Your task to perform on an android device: turn off notifications in google photos Image 0: 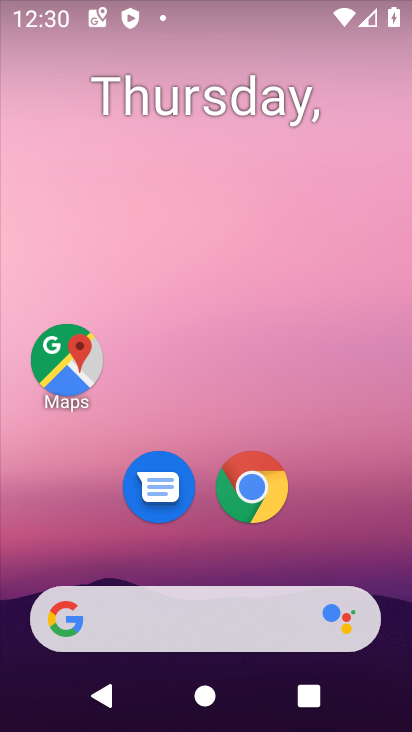
Step 0: drag from (387, 586) to (299, 115)
Your task to perform on an android device: turn off notifications in google photos Image 1: 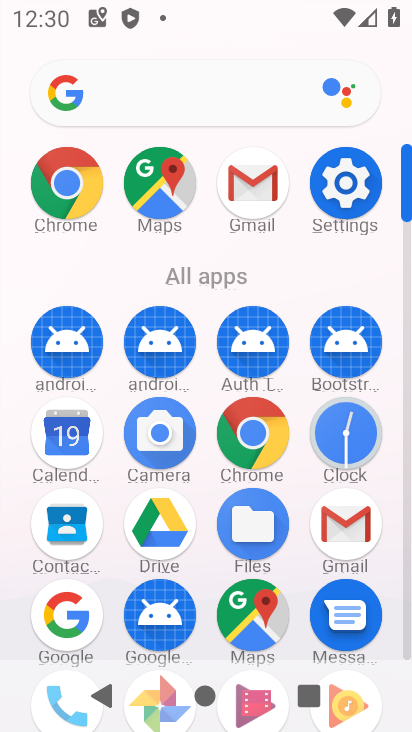
Step 1: click (409, 651)
Your task to perform on an android device: turn off notifications in google photos Image 2: 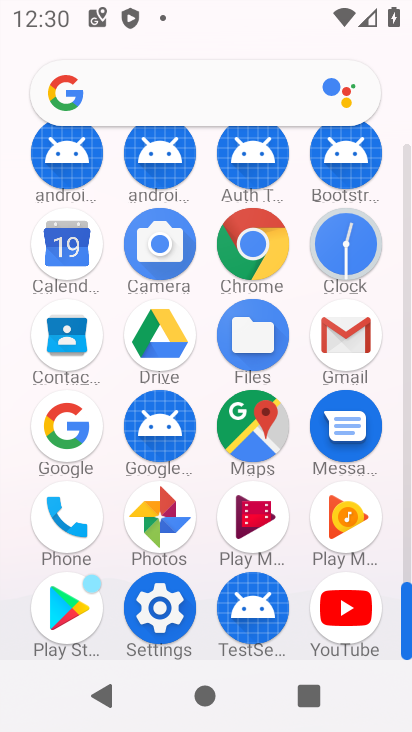
Step 2: click (171, 535)
Your task to perform on an android device: turn off notifications in google photos Image 3: 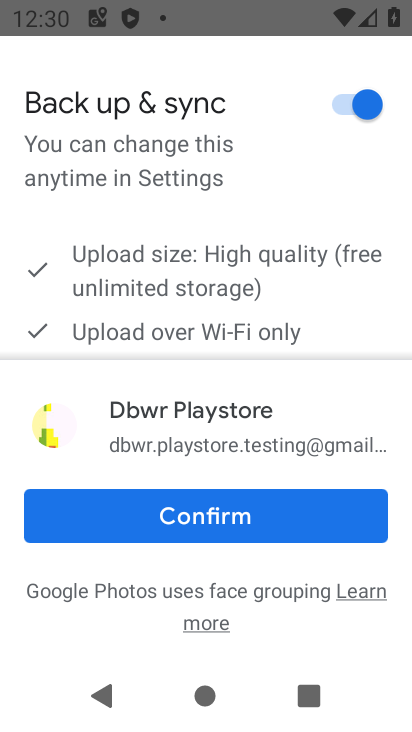
Step 3: click (169, 532)
Your task to perform on an android device: turn off notifications in google photos Image 4: 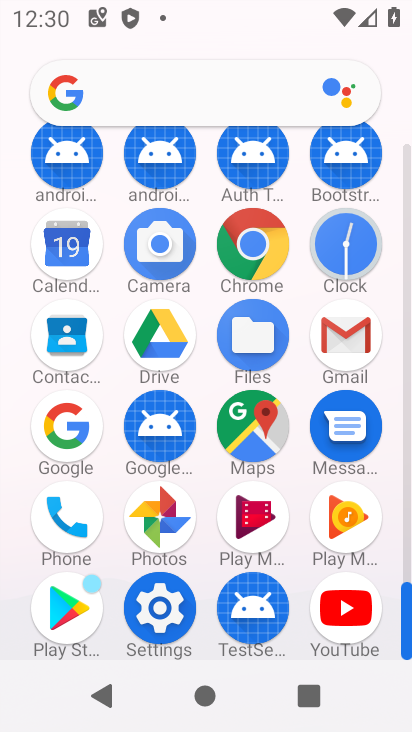
Step 4: click (165, 511)
Your task to perform on an android device: turn off notifications in google photos Image 5: 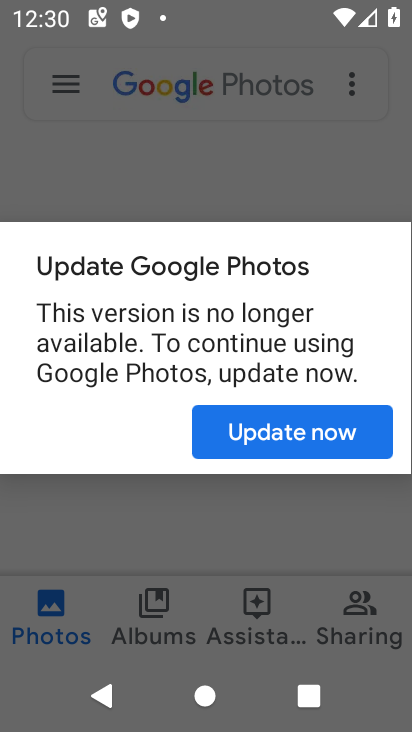
Step 5: click (262, 451)
Your task to perform on an android device: turn off notifications in google photos Image 6: 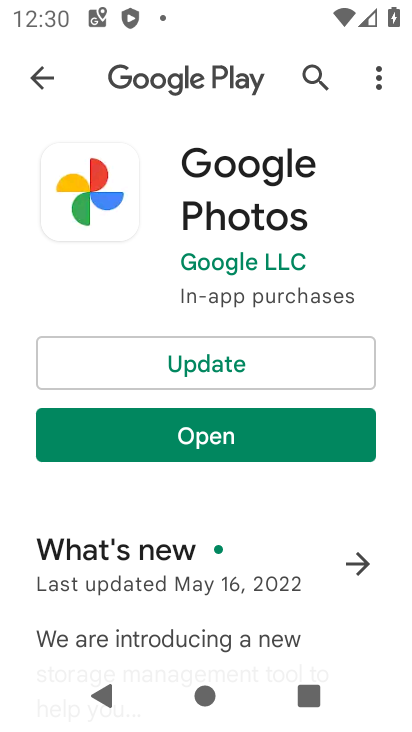
Step 6: click (229, 376)
Your task to perform on an android device: turn off notifications in google photos Image 7: 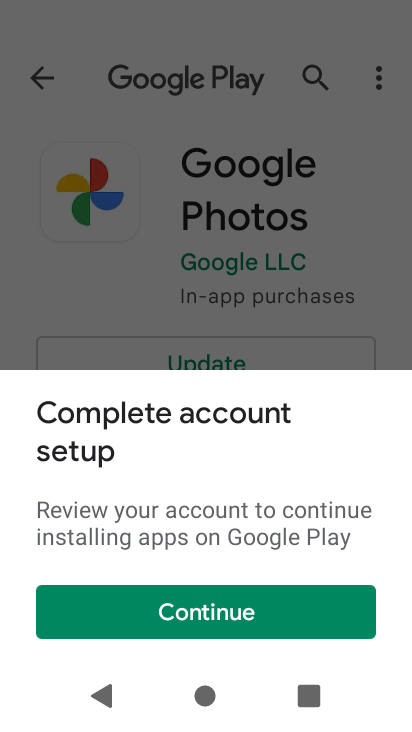
Step 7: click (274, 612)
Your task to perform on an android device: turn off notifications in google photos Image 8: 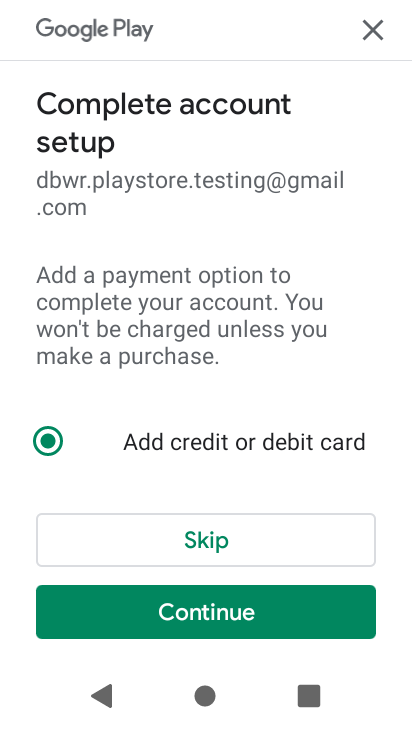
Step 8: click (266, 531)
Your task to perform on an android device: turn off notifications in google photos Image 9: 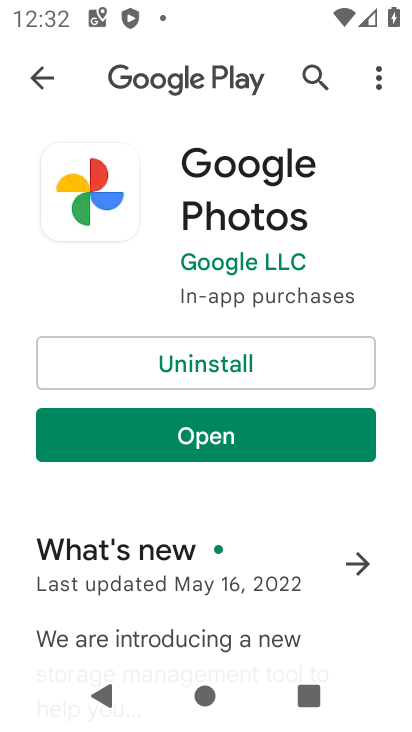
Step 9: click (328, 442)
Your task to perform on an android device: turn off notifications in google photos Image 10: 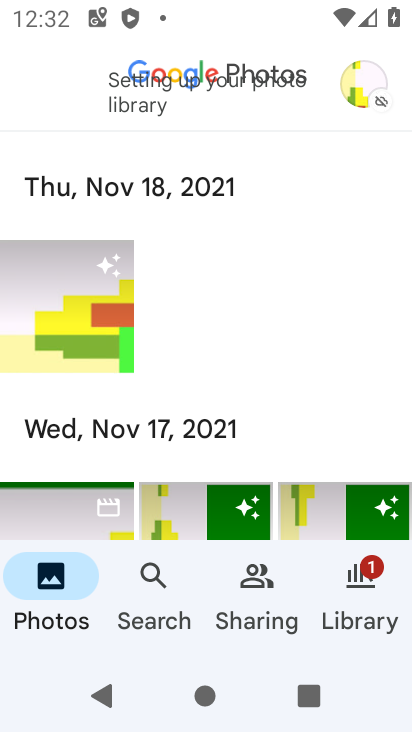
Step 10: click (360, 95)
Your task to perform on an android device: turn off notifications in google photos Image 11: 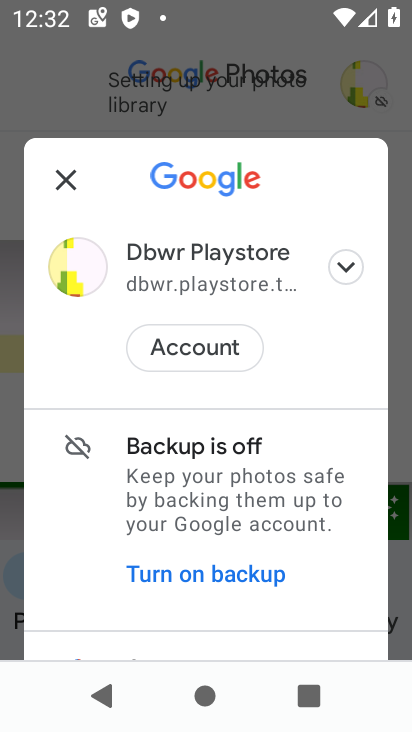
Step 11: drag from (334, 610) to (308, 253)
Your task to perform on an android device: turn off notifications in google photos Image 12: 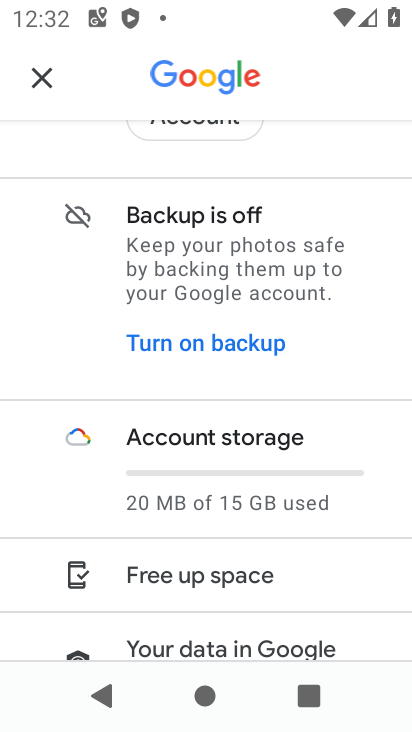
Step 12: drag from (326, 594) to (318, 211)
Your task to perform on an android device: turn off notifications in google photos Image 13: 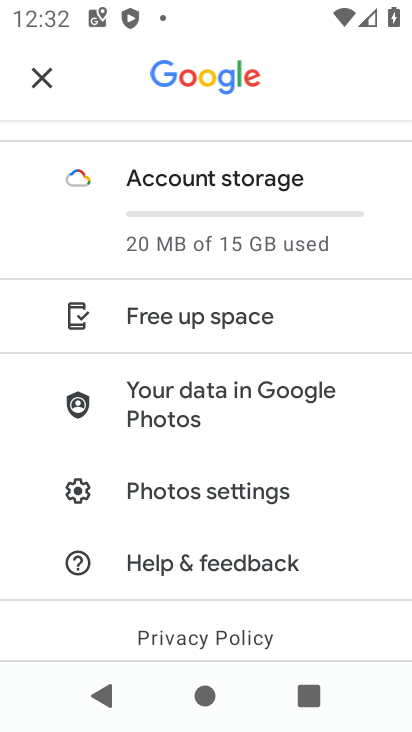
Step 13: click (301, 488)
Your task to perform on an android device: turn off notifications in google photos Image 14: 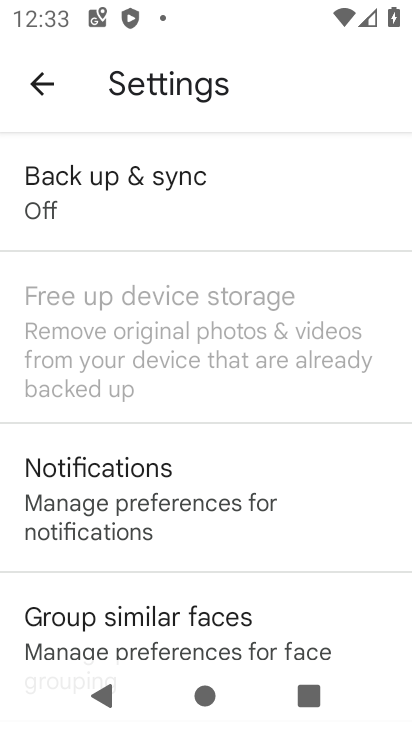
Step 14: click (253, 506)
Your task to perform on an android device: turn off notifications in google photos Image 15: 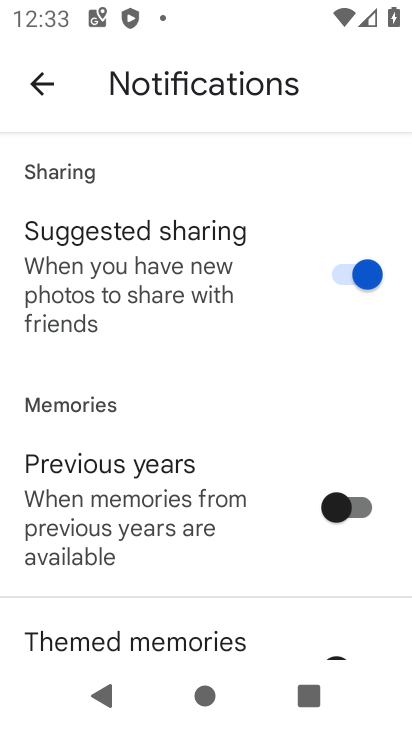
Step 15: drag from (205, 605) to (209, 0)
Your task to perform on an android device: turn off notifications in google photos Image 16: 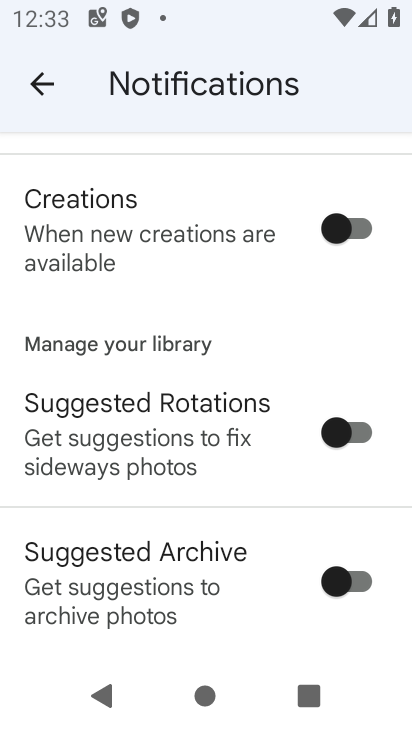
Step 16: drag from (248, 617) to (231, 208)
Your task to perform on an android device: turn off notifications in google photos Image 17: 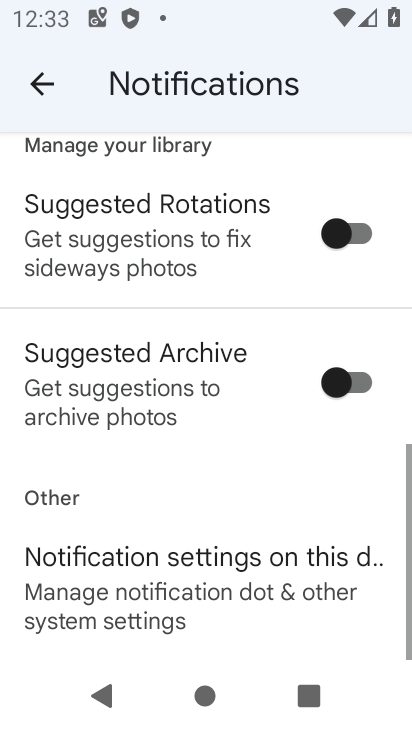
Step 17: click (207, 579)
Your task to perform on an android device: turn off notifications in google photos Image 18: 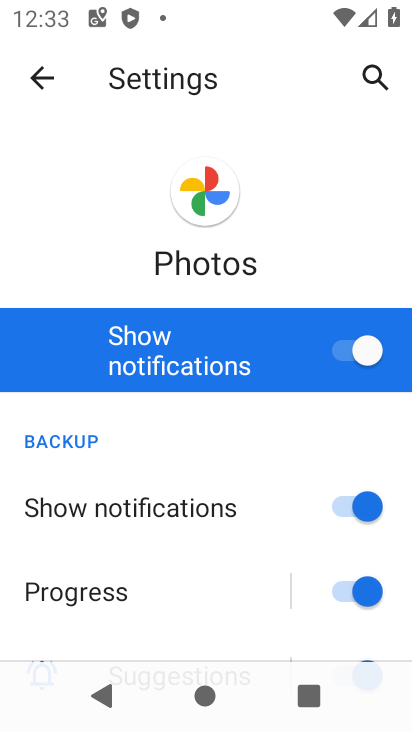
Step 18: click (349, 358)
Your task to perform on an android device: turn off notifications in google photos Image 19: 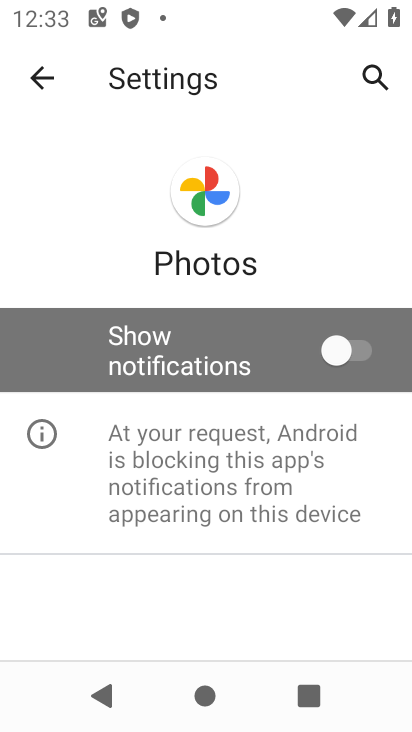
Step 19: task complete